Your task to perform on an android device: Search for "asus rog" on newegg.com, select the first entry, add it to the cart, then select checkout. Image 0: 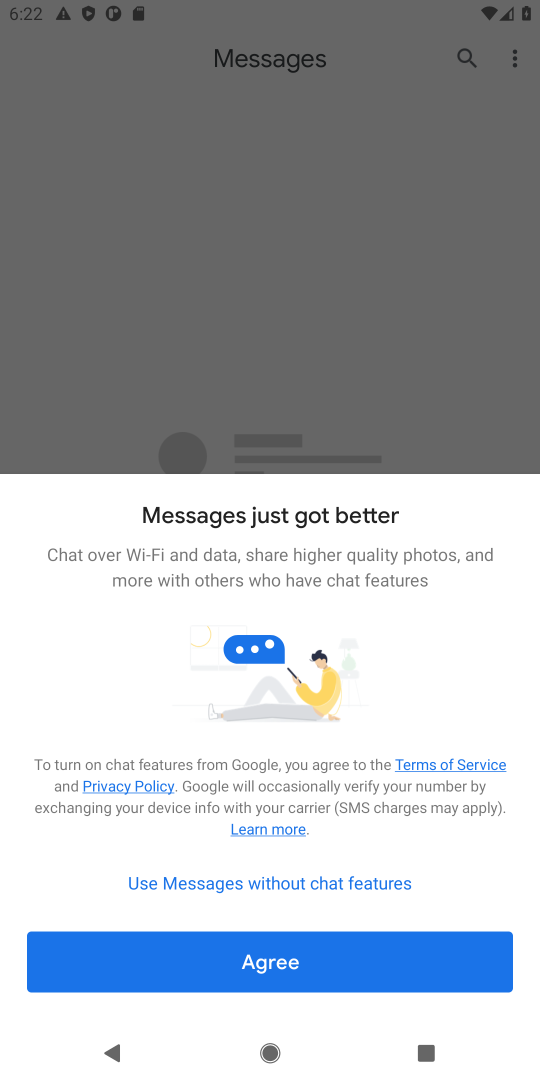
Step 0: press home button
Your task to perform on an android device: Search for "asus rog" on newegg.com, select the first entry, add it to the cart, then select checkout. Image 1: 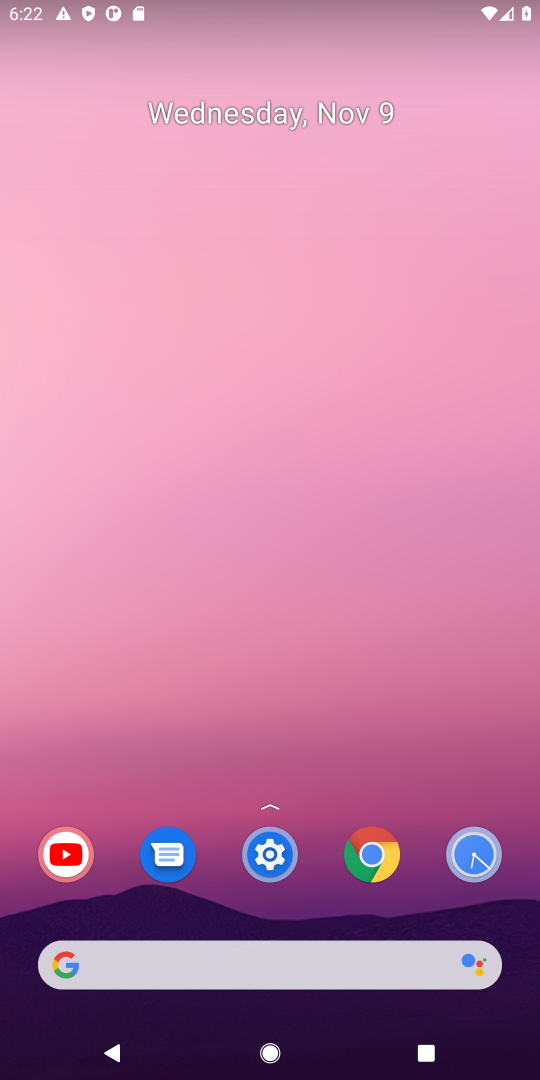
Step 1: click (225, 962)
Your task to perform on an android device: Search for "asus rog" on newegg.com, select the first entry, add it to the cart, then select checkout. Image 2: 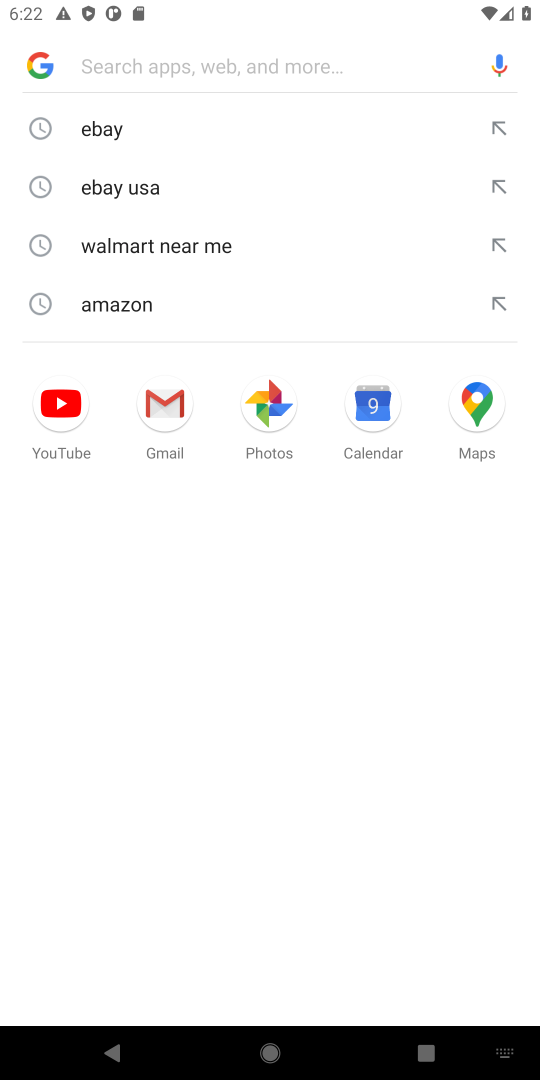
Step 2: type "newegg"
Your task to perform on an android device: Search for "asus rog" on newegg.com, select the first entry, add it to the cart, then select checkout. Image 3: 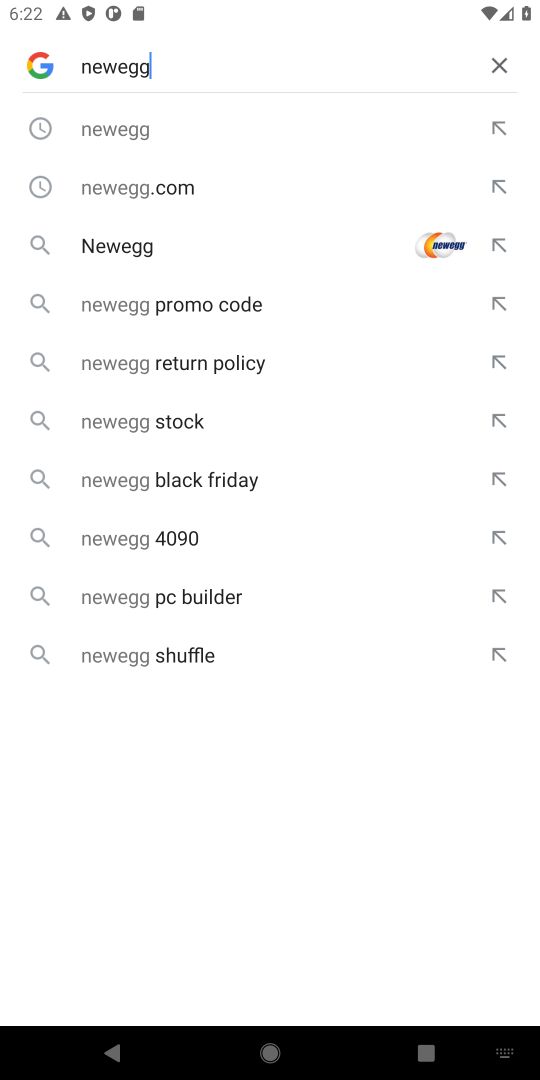
Step 3: click (193, 178)
Your task to perform on an android device: Search for "asus rog" on newegg.com, select the first entry, add it to the cart, then select checkout. Image 4: 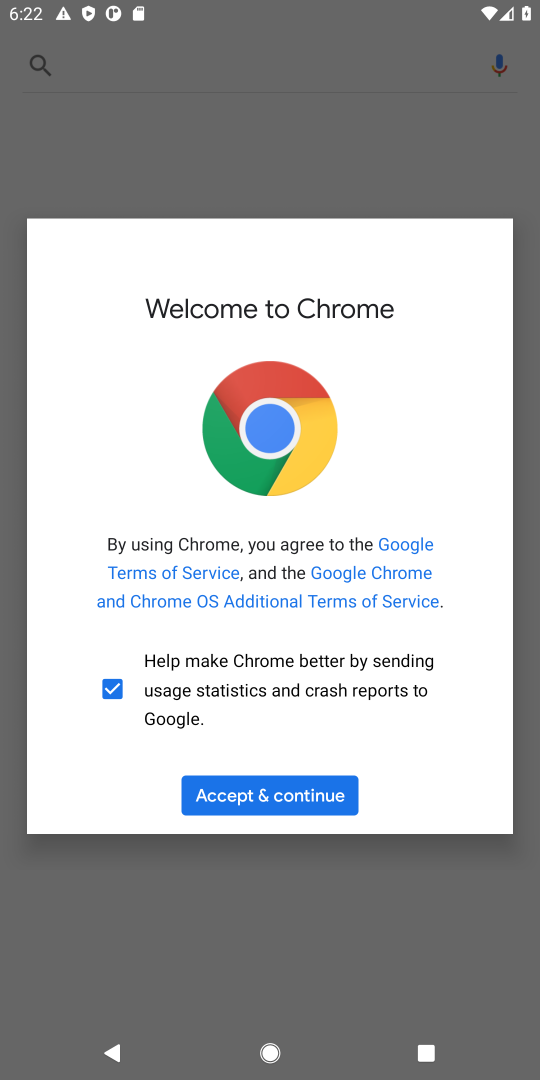
Step 4: click (324, 798)
Your task to perform on an android device: Search for "asus rog" on newegg.com, select the first entry, add it to the cart, then select checkout. Image 5: 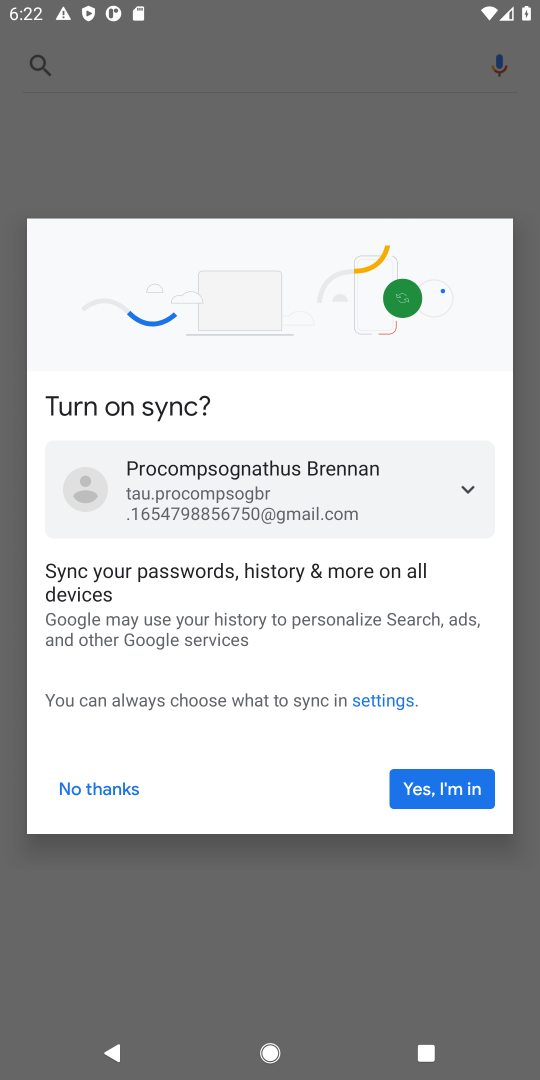
Step 5: click (397, 788)
Your task to perform on an android device: Search for "asus rog" on newegg.com, select the first entry, add it to the cart, then select checkout. Image 6: 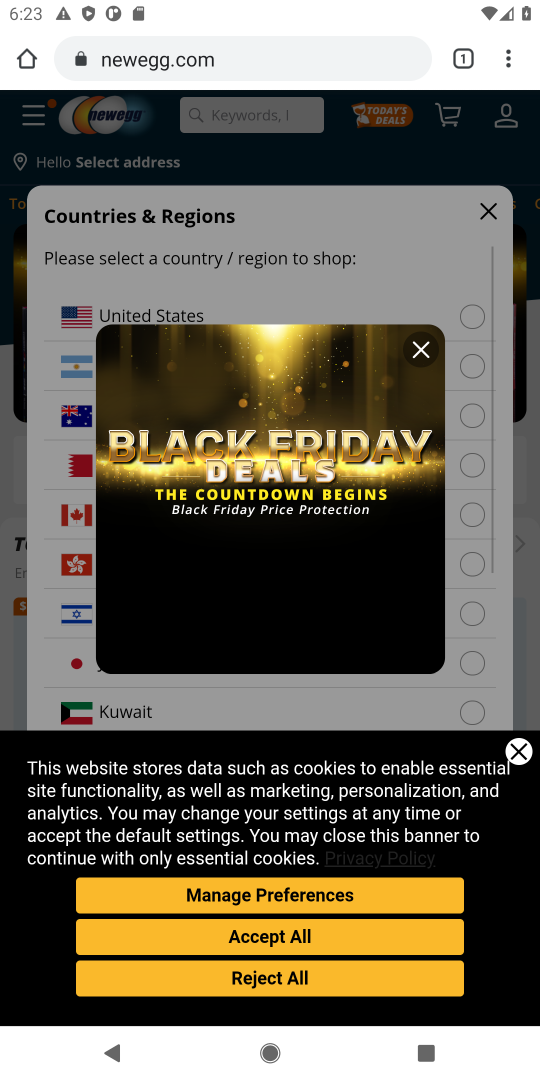
Step 6: click (313, 936)
Your task to perform on an android device: Search for "asus rog" on newegg.com, select the first entry, add it to the cart, then select checkout. Image 7: 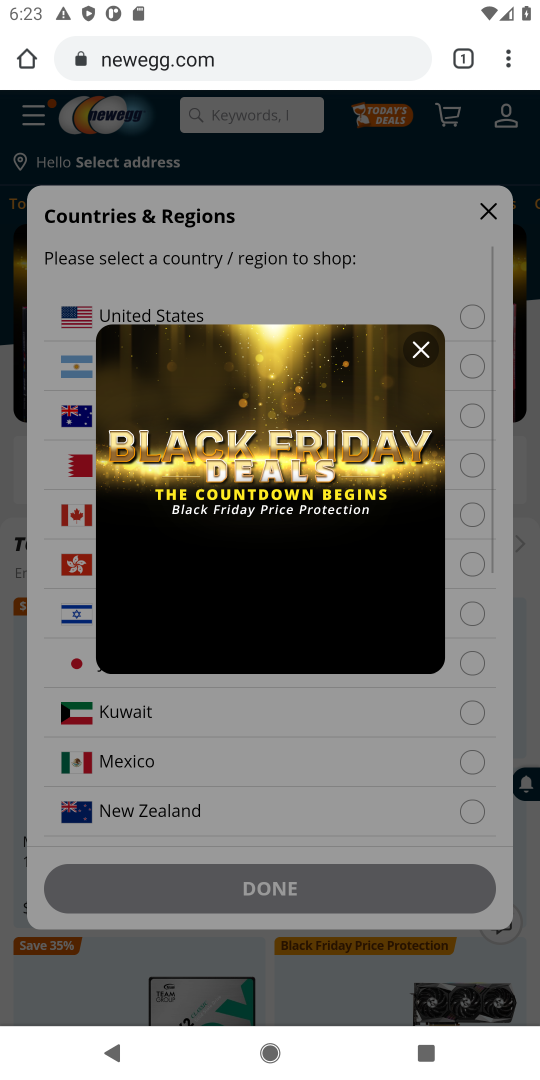
Step 7: click (427, 357)
Your task to perform on an android device: Search for "asus rog" on newegg.com, select the first entry, add it to the cart, then select checkout. Image 8: 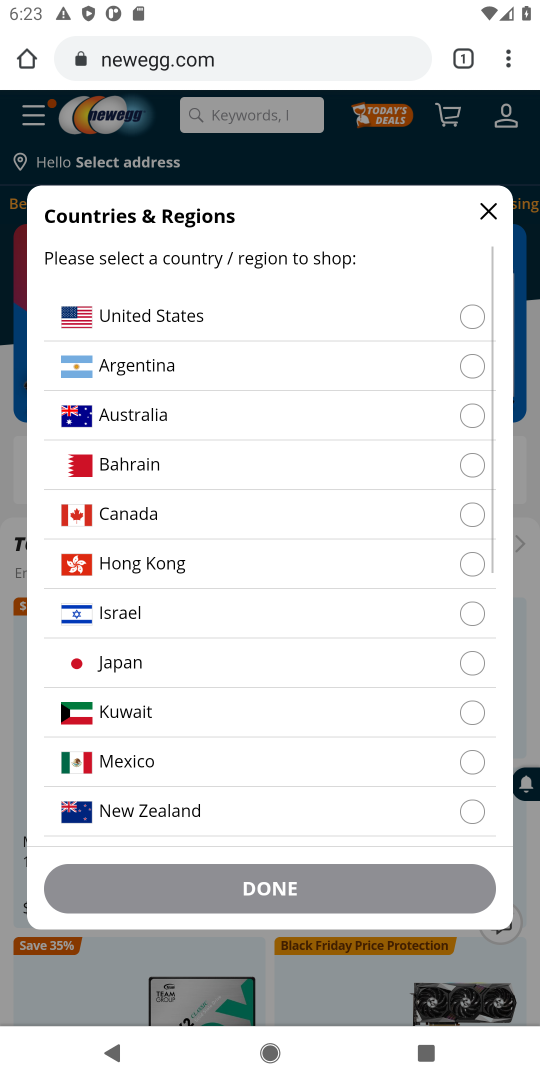
Step 8: click (266, 327)
Your task to perform on an android device: Search for "asus rog" on newegg.com, select the first entry, add it to the cart, then select checkout. Image 9: 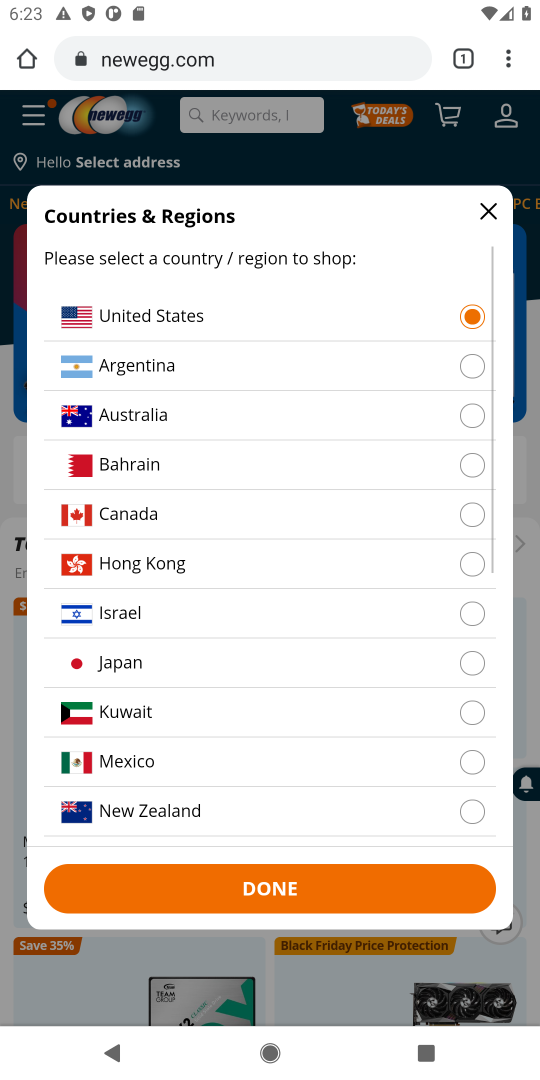
Step 9: click (318, 886)
Your task to perform on an android device: Search for "asus rog" on newegg.com, select the first entry, add it to the cart, then select checkout. Image 10: 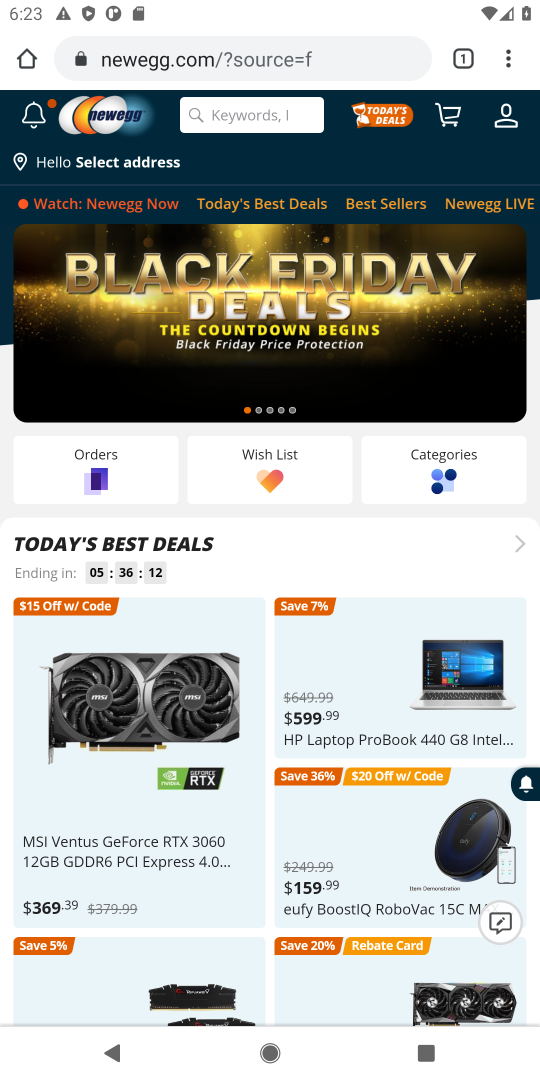
Step 10: task complete